Your task to perform on an android device: Open CNN.com Image 0: 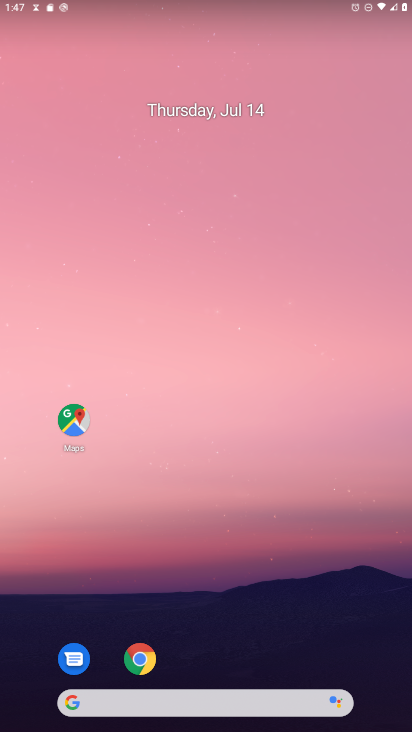
Step 0: click (129, 706)
Your task to perform on an android device: Open CNN.com Image 1: 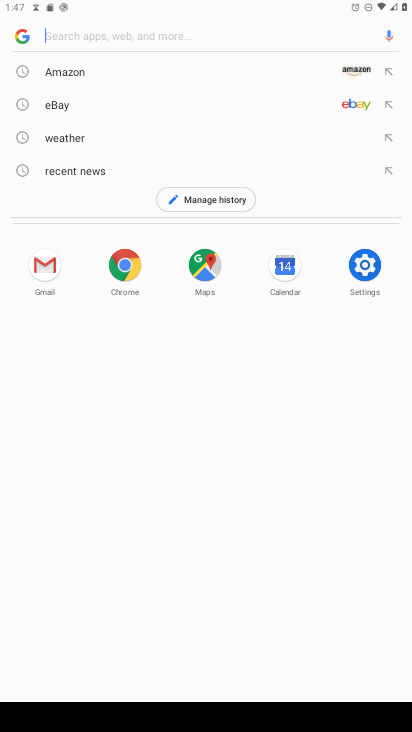
Step 1: type "CNN.com"
Your task to perform on an android device: Open CNN.com Image 2: 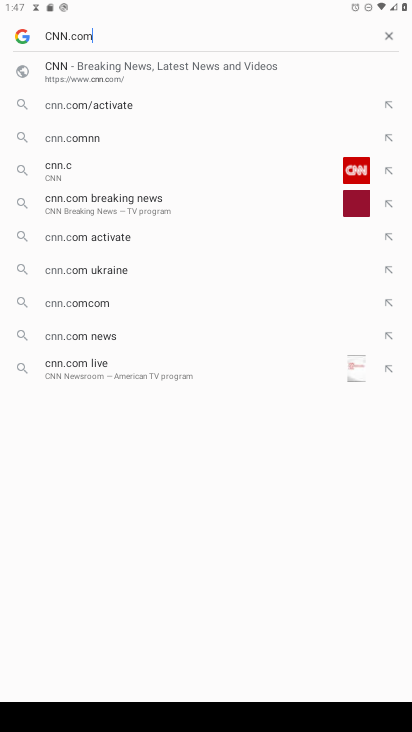
Step 2: type ""
Your task to perform on an android device: Open CNN.com Image 3: 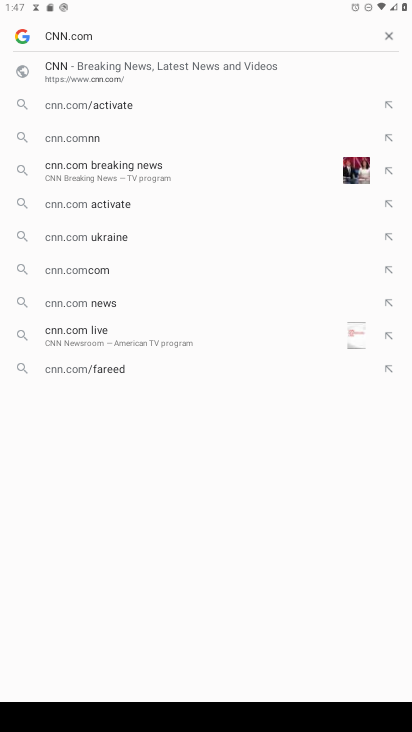
Step 3: task complete